Your task to perform on an android device: Clear all items from cart on costco.com. Add "razer thresher" to the cart on costco.com, then select checkout. Image 0: 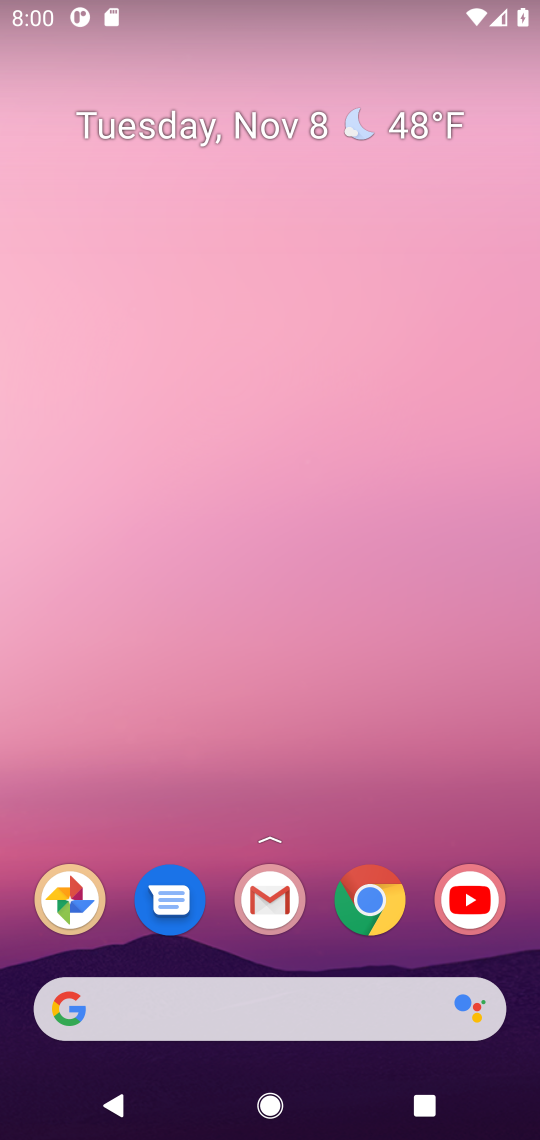
Step 0: drag from (346, 938) to (359, 16)
Your task to perform on an android device: Clear all items from cart on costco.com. Add "razer thresher" to the cart on costco.com, then select checkout. Image 1: 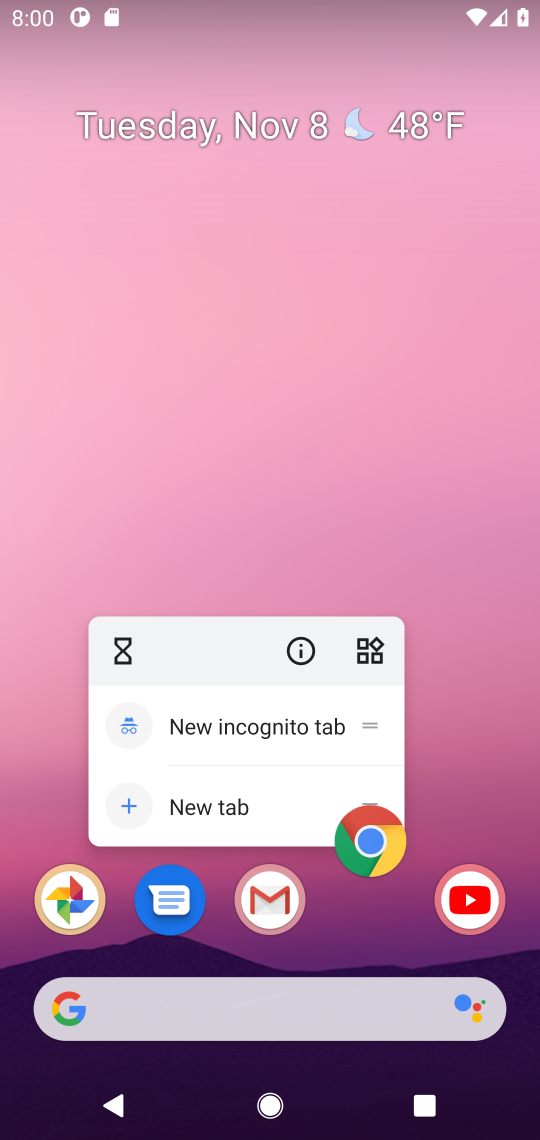
Step 1: click (366, 523)
Your task to perform on an android device: Clear all items from cart on costco.com. Add "razer thresher" to the cart on costco.com, then select checkout. Image 2: 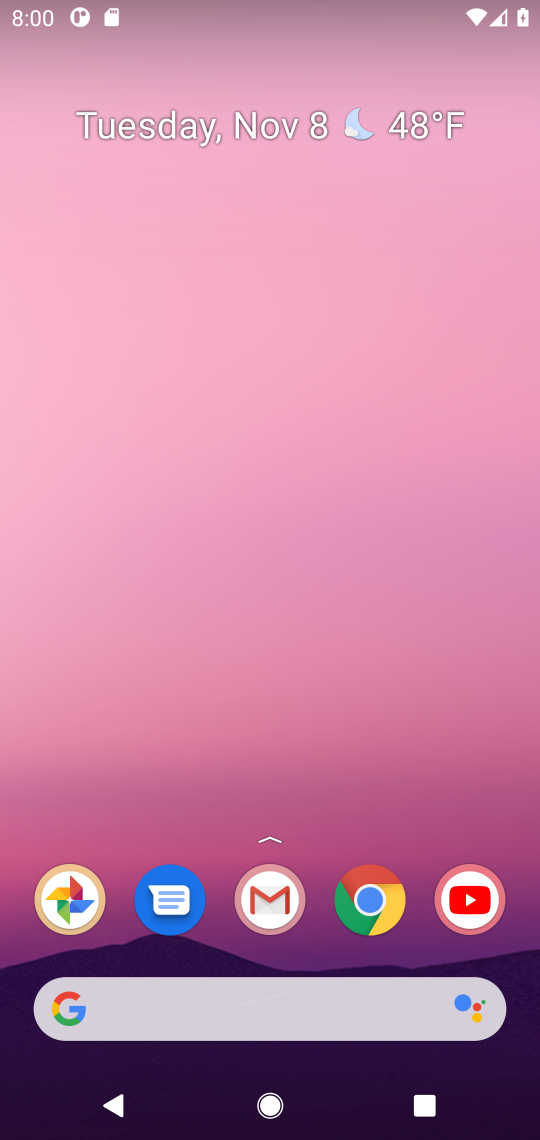
Step 2: drag from (219, 988) to (199, 297)
Your task to perform on an android device: Clear all items from cart on costco.com. Add "razer thresher" to the cart on costco.com, then select checkout. Image 3: 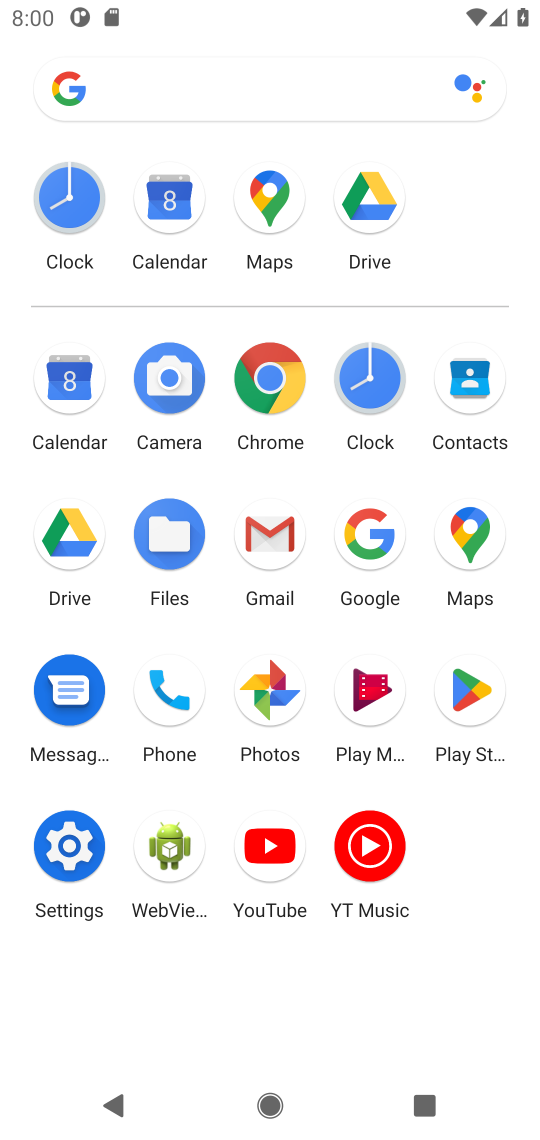
Step 3: click (376, 537)
Your task to perform on an android device: Clear all items from cart on costco.com. Add "razer thresher" to the cart on costco.com, then select checkout. Image 4: 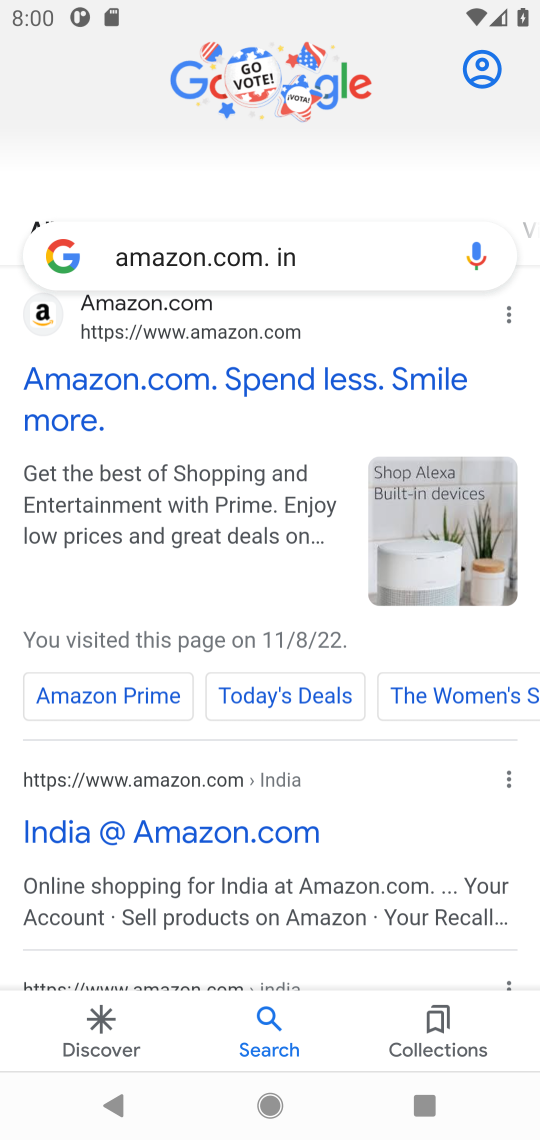
Step 4: click (312, 257)
Your task to perform on an android device: Clear all items from cart on costco.com. Add "razer thresher" to the cart on costco.com, then select checkout. Image 5: 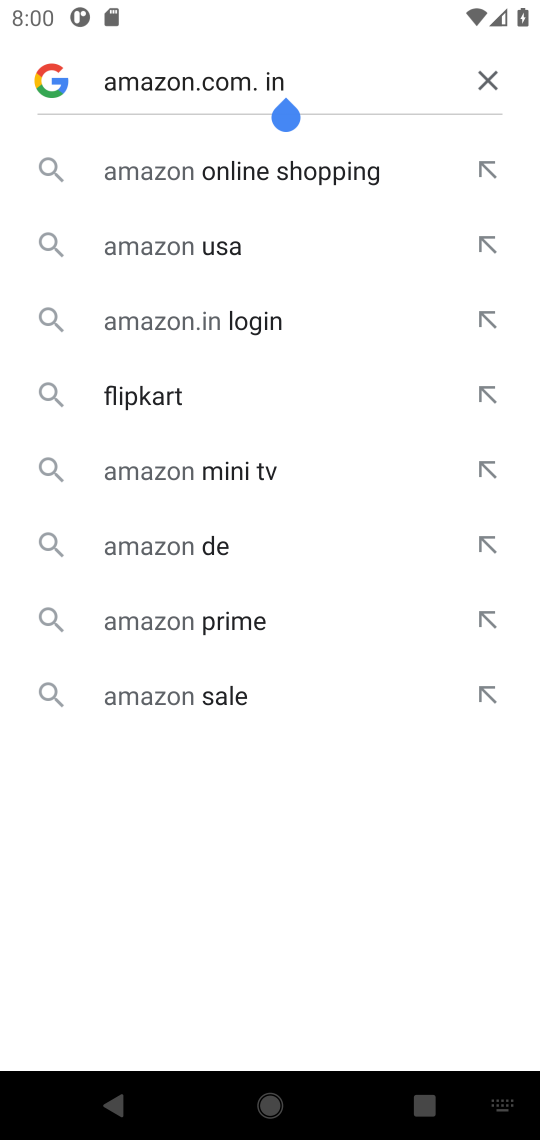
Step 5: click (393, 92)
Your task to perform on an android device: Clear all items from cart on costco.com. Add "razer thresher" to the cart on costco.com, then select checkout. Image 6: 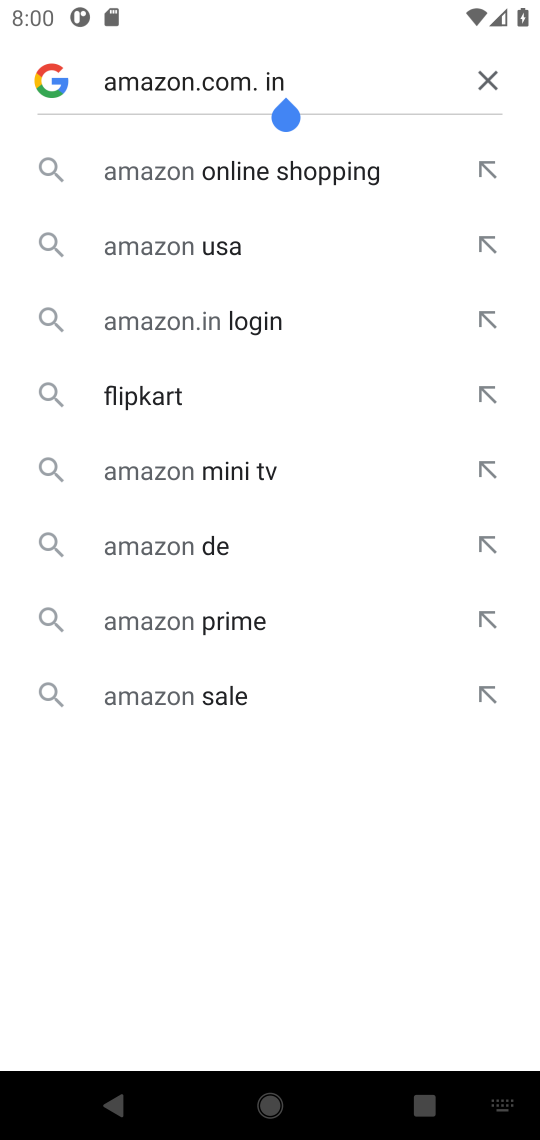
Step 6: click (491, 77)
Your task to perform on an android device: Clear all items from cart on costco.com. Add "razer thresher" to the cart on costco.com, then select checkout. Image 7: 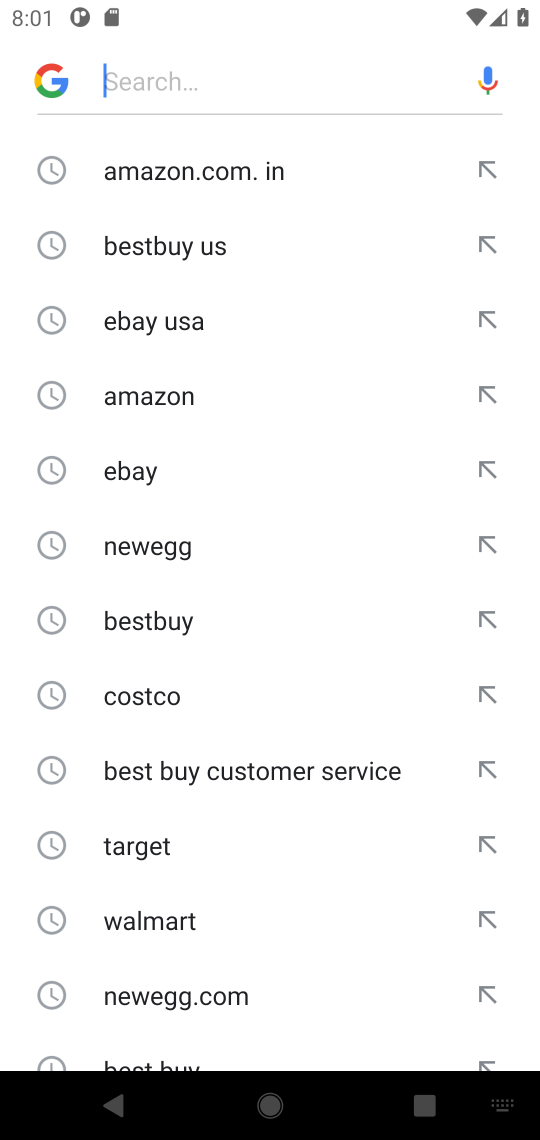
Step 7: click (231, 55)
Your task to perform on an android device: Clear all items from cart on costco.com. Add "razer thresher" to the cart on costco.com, then select checkout. Image 8: 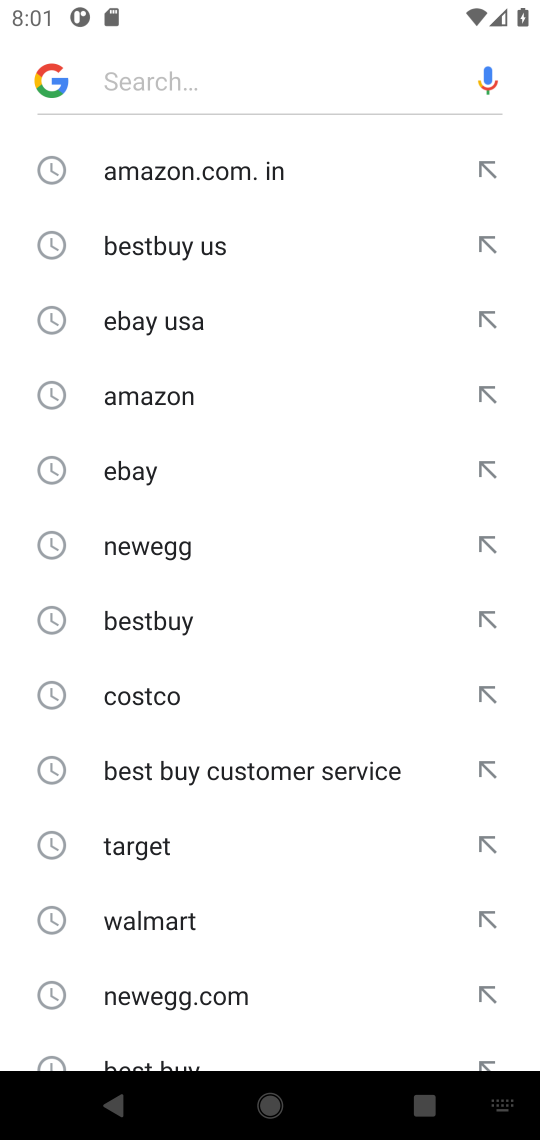
Step 8: type "costco "
Your task to perform on an android device: Clear all items from cart on costco.com. Add "razer thresher" to the cart on costco.com, then select checkout. Image 9: 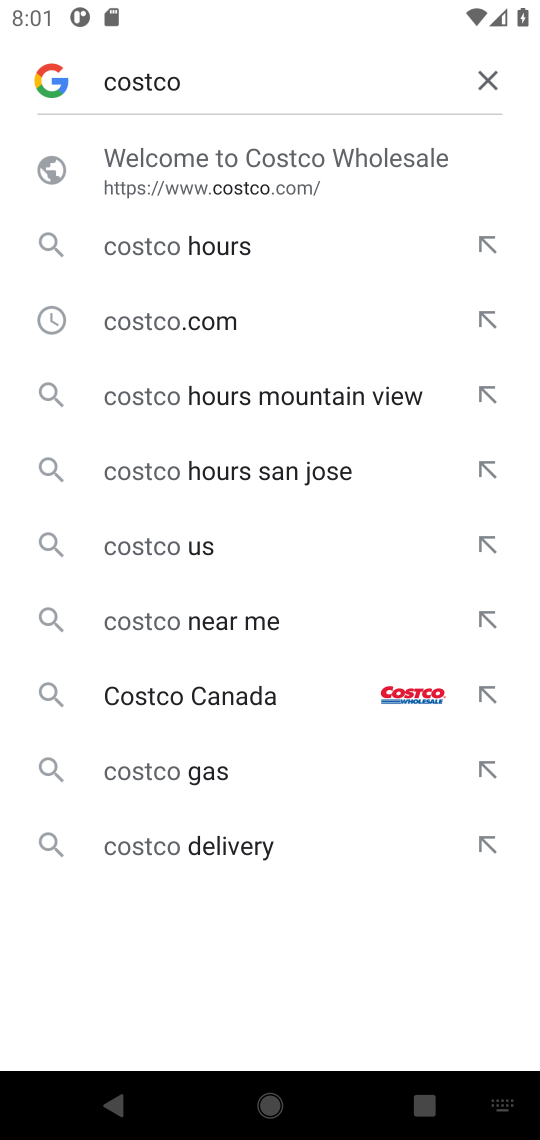
Step 9: click (269, 158)
Your task to perform on an android device: Clear all items from cart on costco.com. Add "razer thresher" to the cart on costco.com, then select checkout. Image 10: 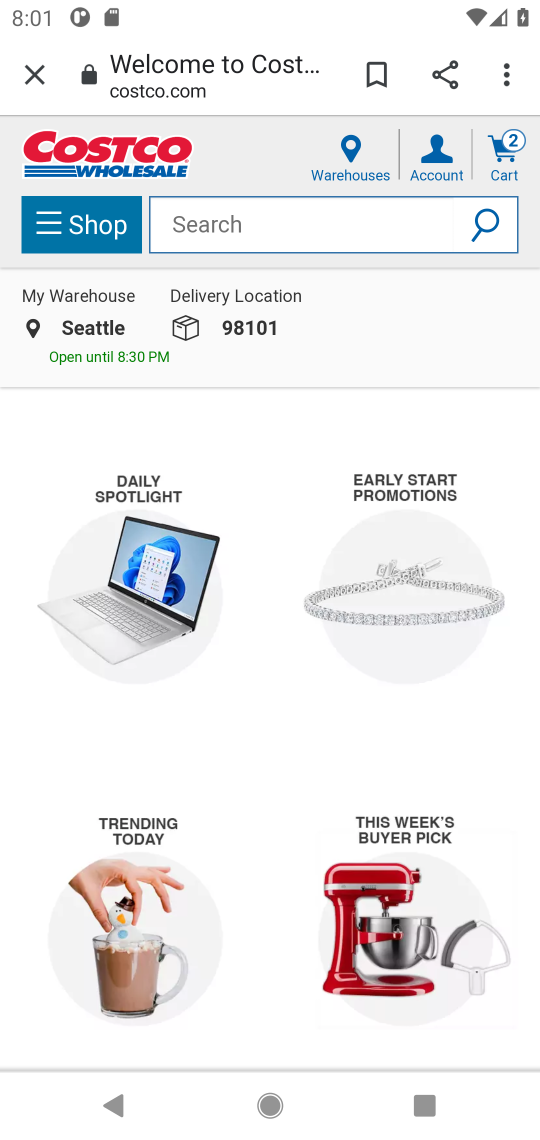
Step 10: click (250, 217)
Your task to perform on an android device: Clear all items from cart on costco.com. Add "razer thresher" to the cart on costco.com, then select checkout. Image 11: 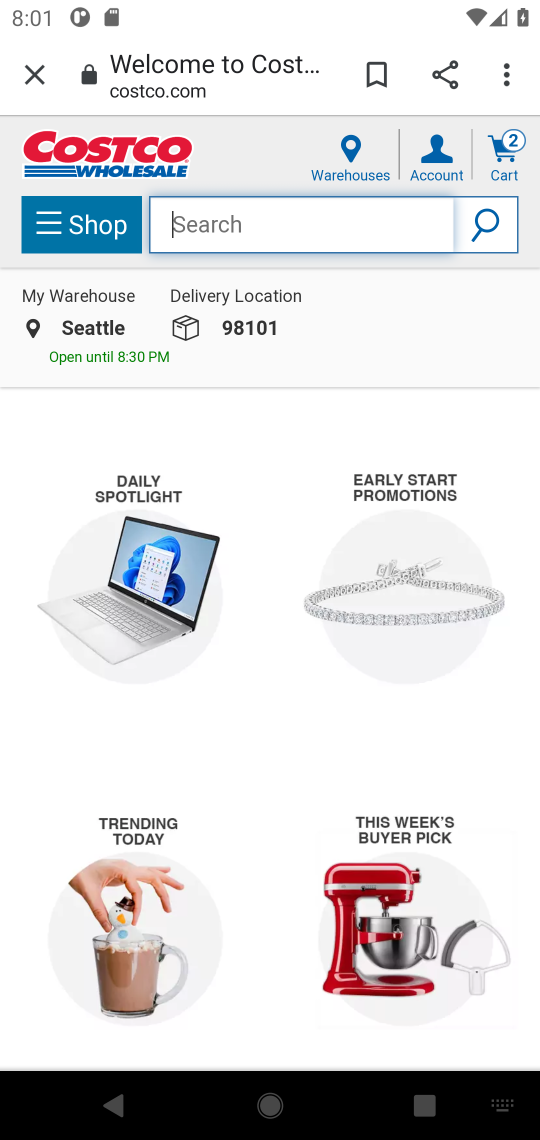
Step 11: click (250, 217)
Your task to perform on an android device: Clear all items from cart on costco.com. Add "razer thresher" to the cart on costco.com, then select checkout. Image 12: 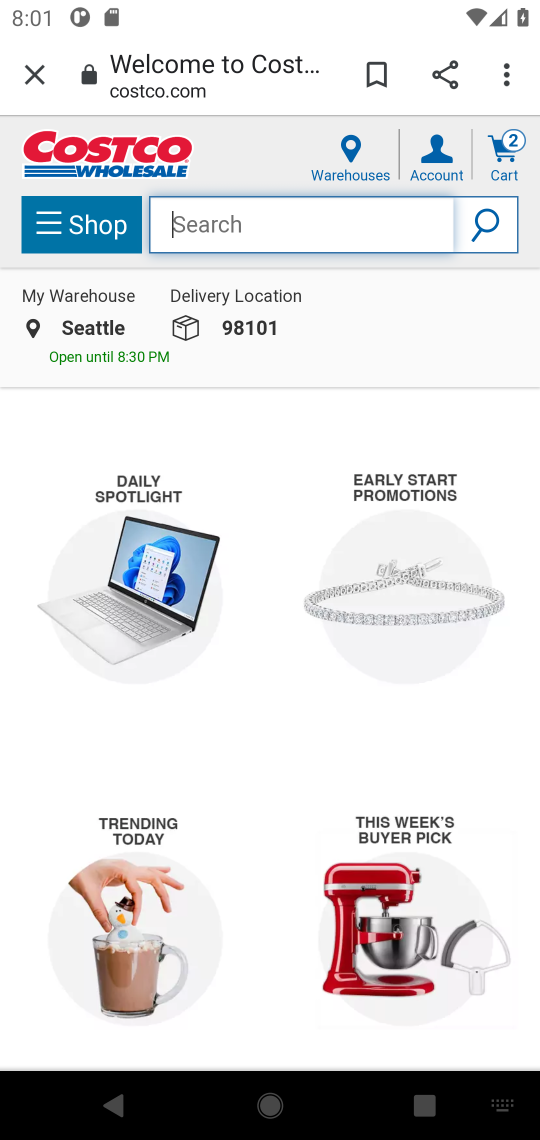
Step 12: type "razer thresher "
Your task to perform on an android device: Clear all items from cart on costco.com. Add "razer thresher" to the cart on costco.com, then select checkout. Image 13: 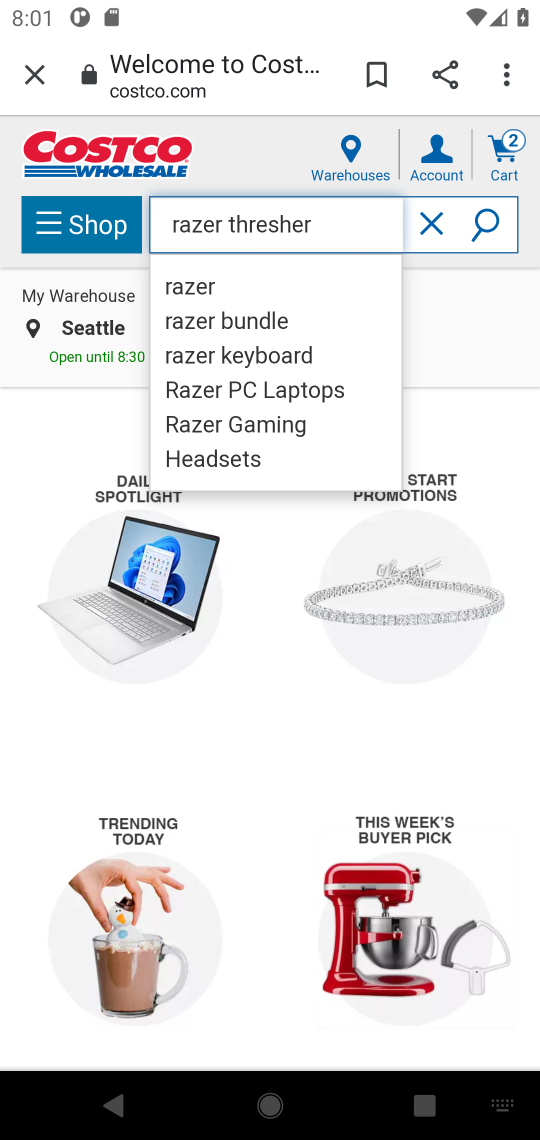
Step 13: click (498, 214)
Your task to perform on an android device: Clear all items from cart on costco.com. Add "razer thresher" to the cart on costco.com, then select checkout. Image 14: 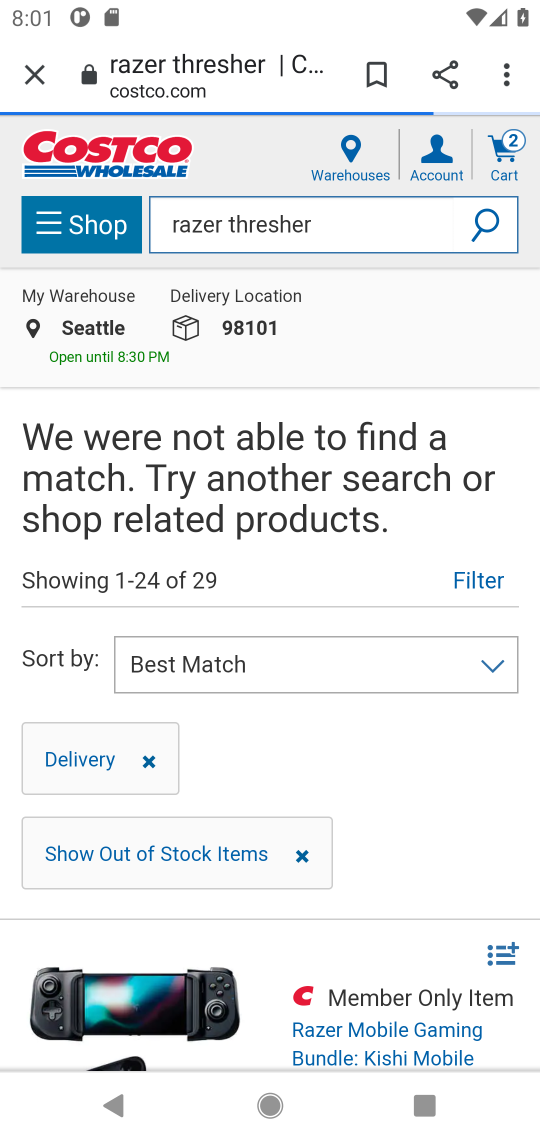
Step 14: drag from (387, 972) to (381, 409)
Your task to perform on an android device: Clear all items from cart on costco.com. Add "razer thresher" to the cart on costco.com, then select checkout. Image 15: 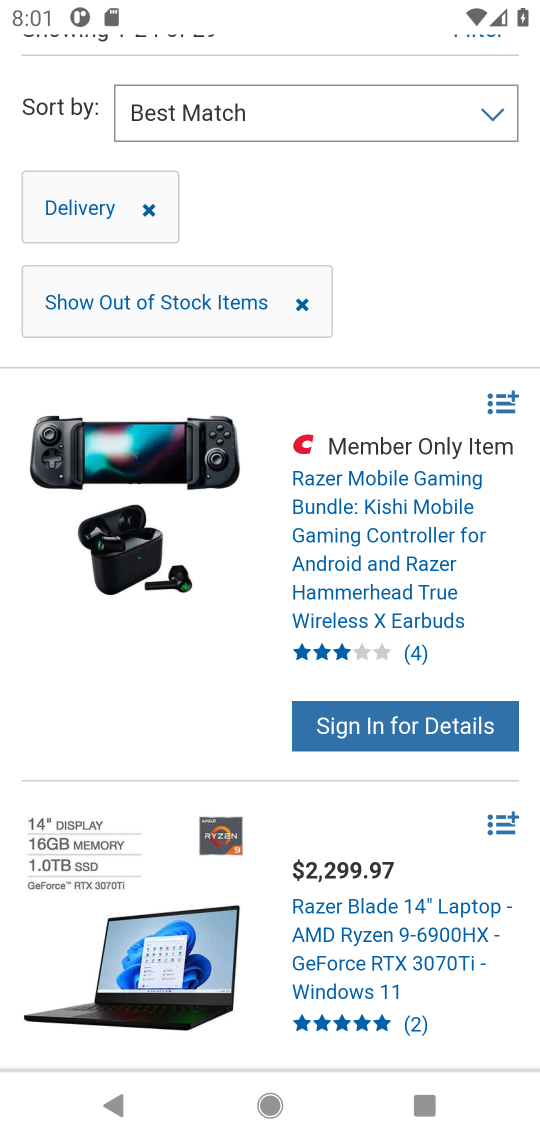
Step 15: drag from (397, 991) to (388, 321)
Your task to perform on an android device: Clear all items from cart on costco.com. Add "razer thresher" to the cart on costco.com, then select checkout. Image 16: 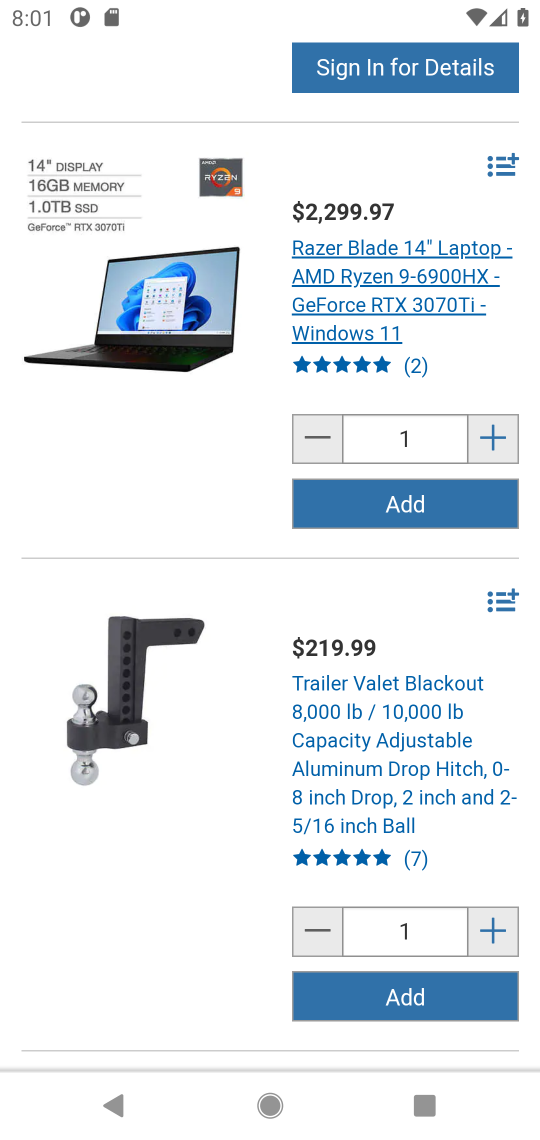
Step 16: click (402, 504)
Your task to perform on an android device: Clear all items from cart on costco.com. Add "razer thresher" to the cart on costco.com, then select checkout. Image 17: 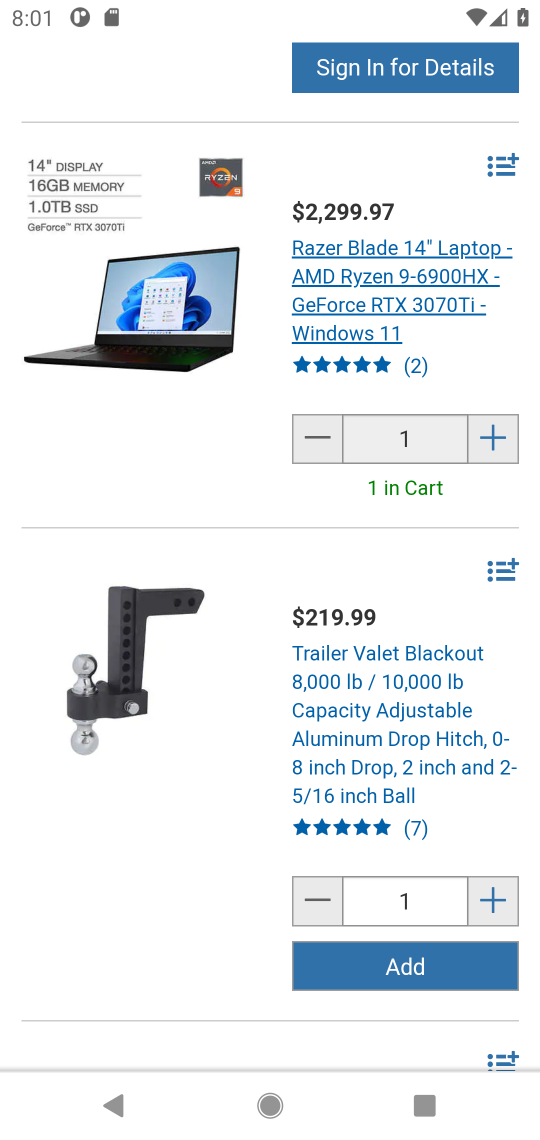
Step 17: task complete